Your task to perform on an android device: Go to Wikipedia Image 0: 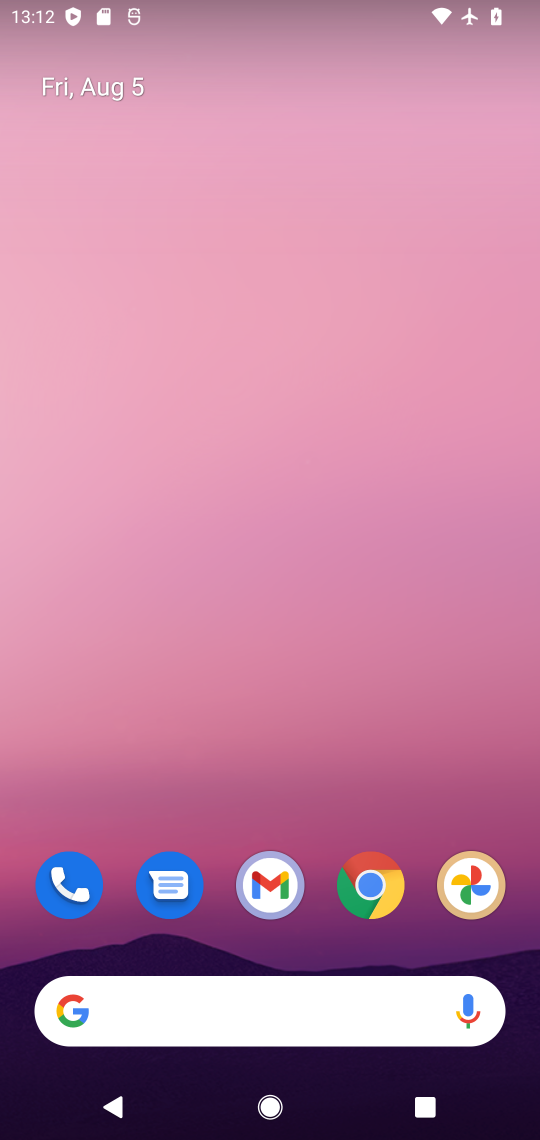
Step 0: drag from (280, 828) to (292, 263)
Your task to perform on an android device: Go to Wikipedia Image 1: 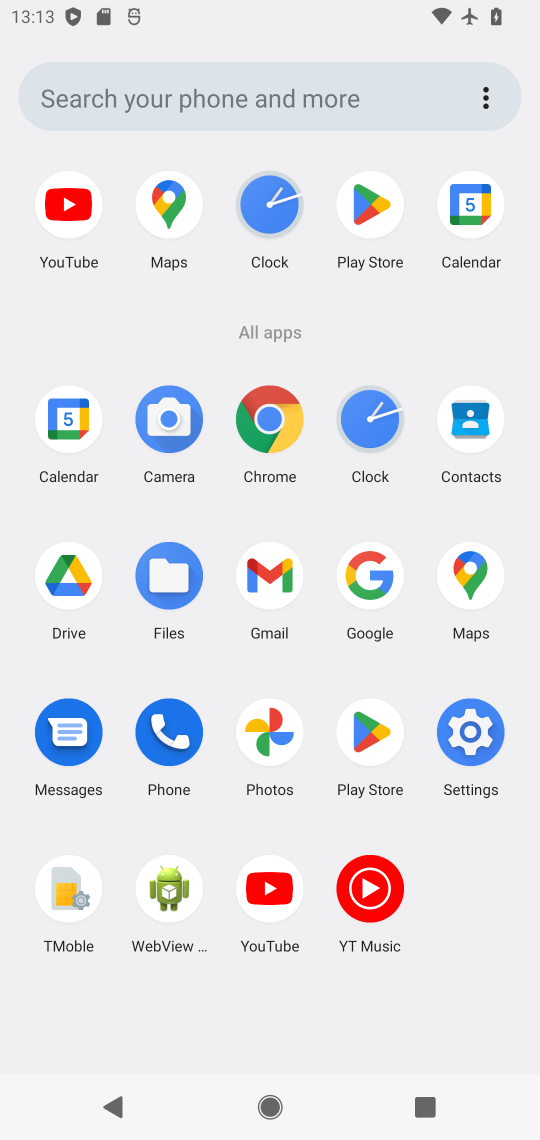
Step 1: click (267, 417)
Your task to perform on an android device: Go to Wikipedia Image 2: 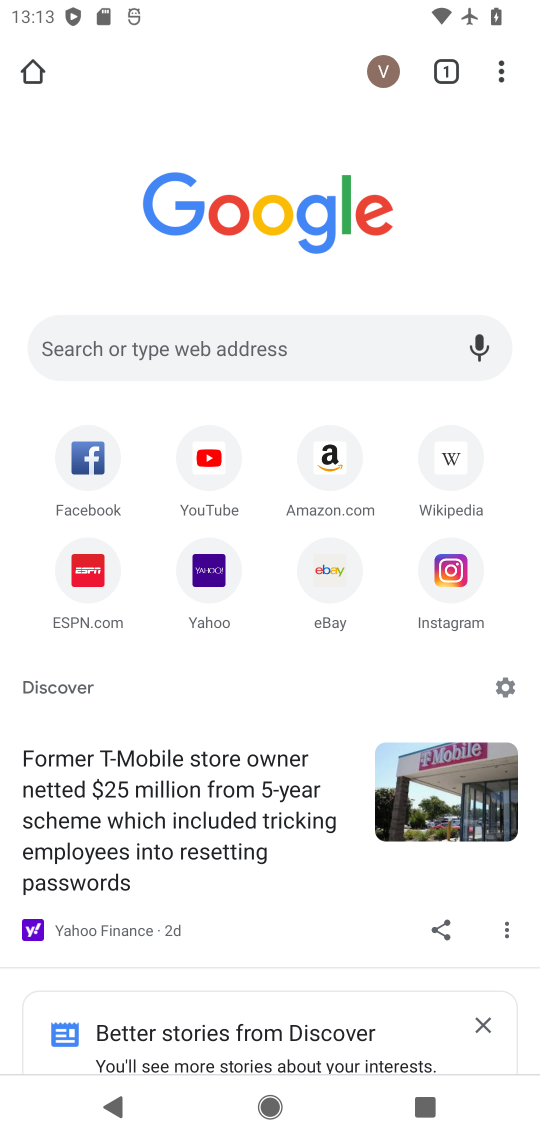
Step 2: click (453, 470)
Your task to perform on an android device: Go to Wikipedia Image 3: 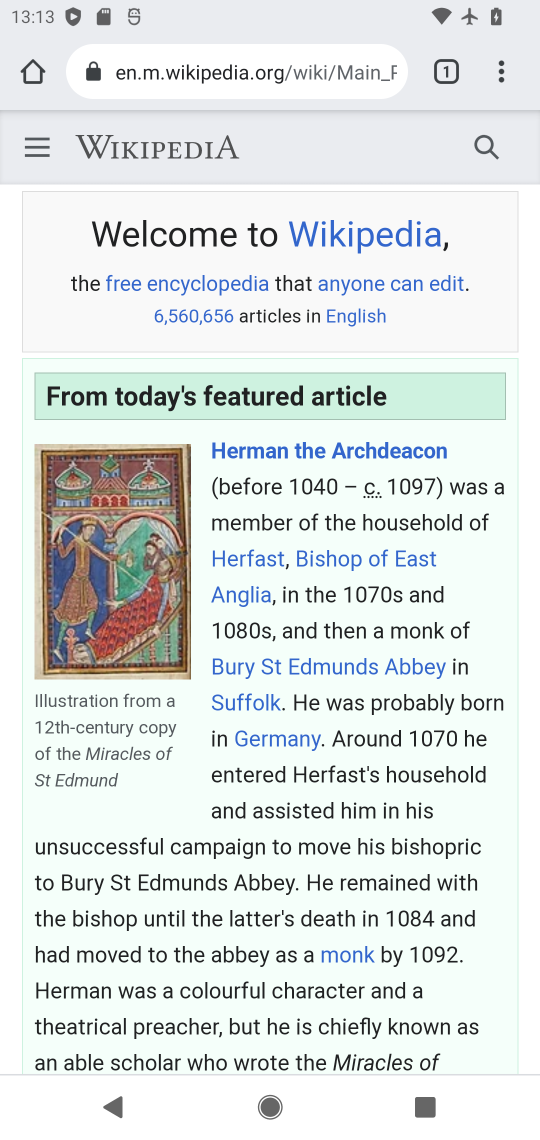
Step 3: task complete